Your task to perform on an android device: Search for "asus zenbook" on target.com, select the first entry, add it to the cart, then select checkout. Image 0: 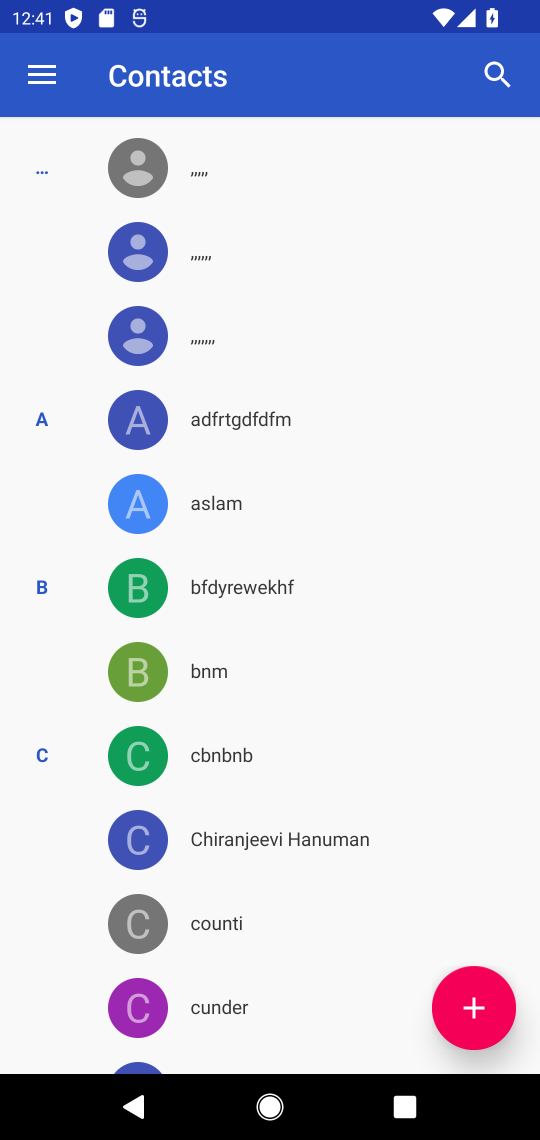
Step 0: press home button
Your task to perform on an android device: Search for "asus zenbook" on target.com, select the first entry, add it to the cart, then select checkout. Image 1: 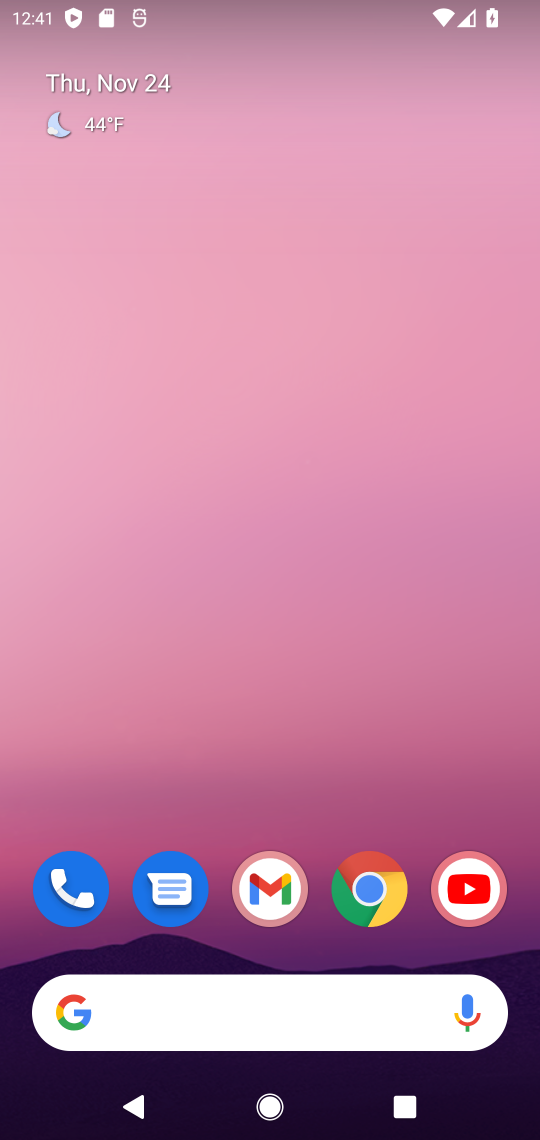
Step 1: click (375, 885)
Your task to perform on an android device: Search for "asus zenbook" on target.com, select the first entry, add it to the cart, then select checkout. Image 2: 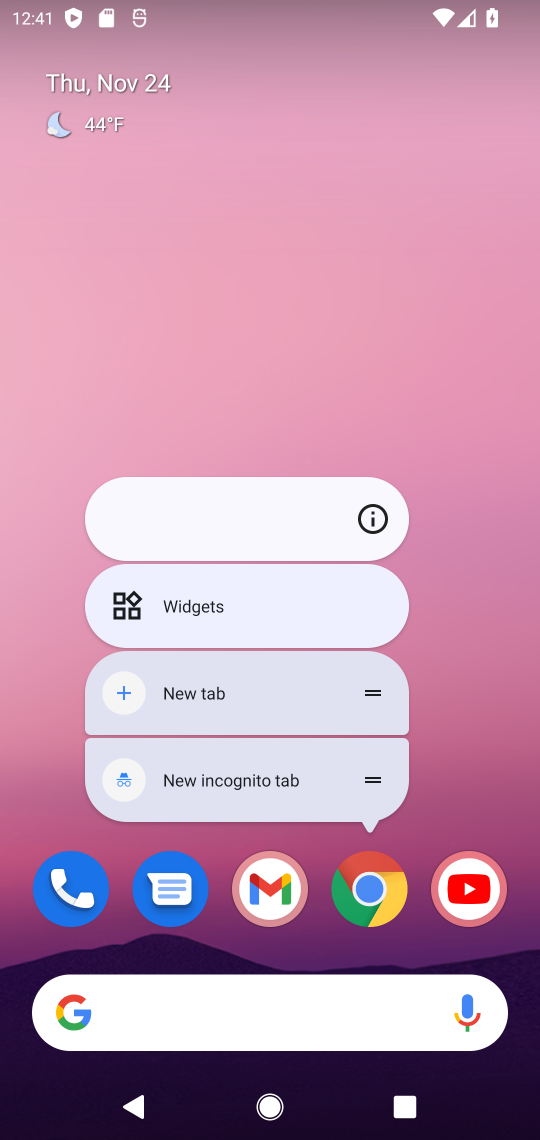
Step 2: click (373, 890)
Your task to perform on an android device: Search for "asus zenbook" on target.com, select the first entry, add it to the cart, then select checkout. Image 3: 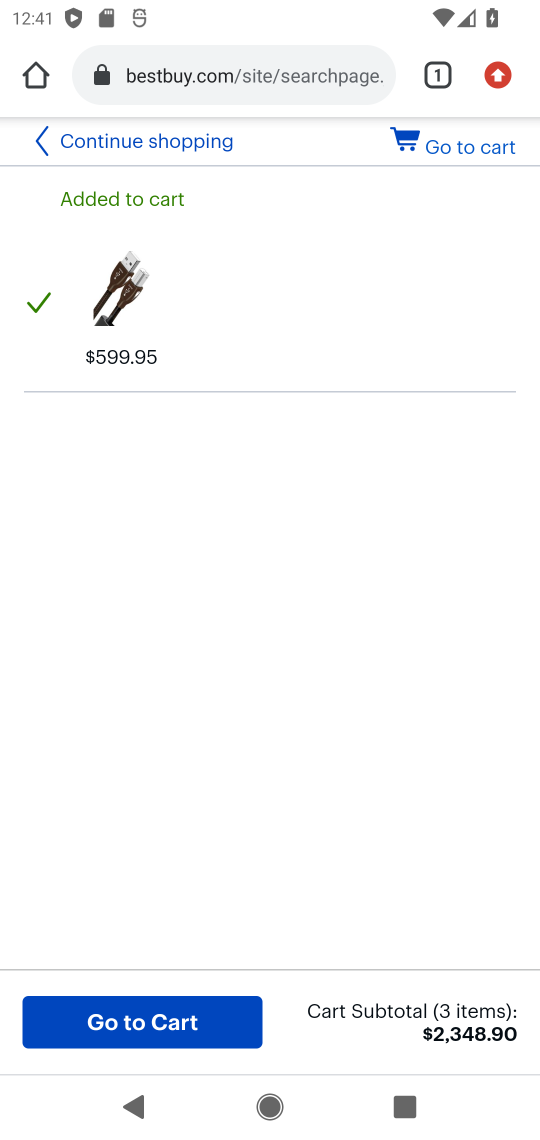
Step 3: click (212, 70)
Your task to perform on an android device: Search for "asus zenbook" on target.com, select the first entry, add it to the cart, then select checkout. Image 4: 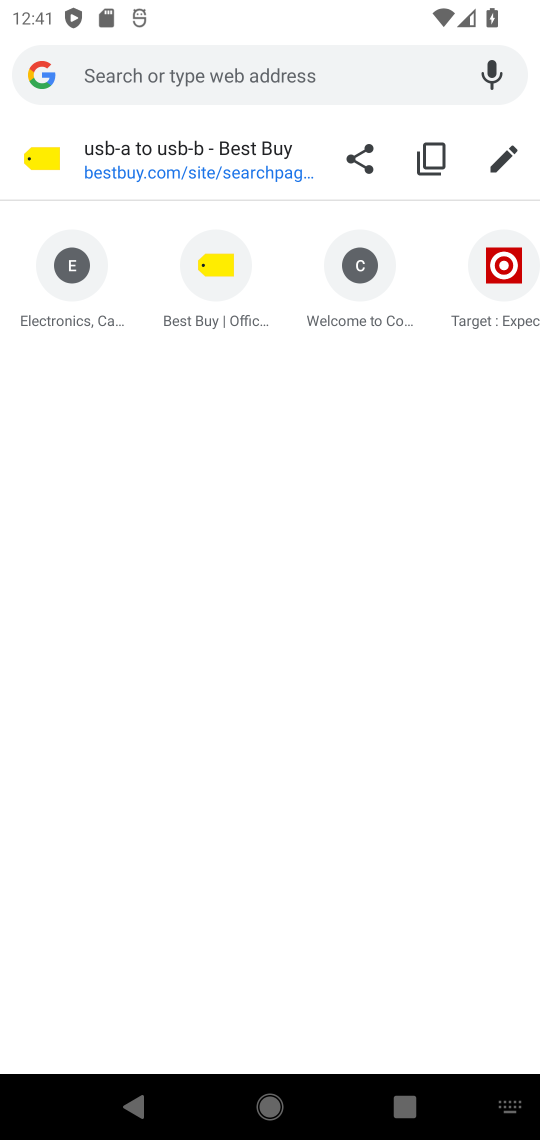
Step 4: click (493, 297)
Your task to perform on an android device: Search for "asus zenbook" on target.com, select the first entry, add it to the cart, then select checkout. Image 5: 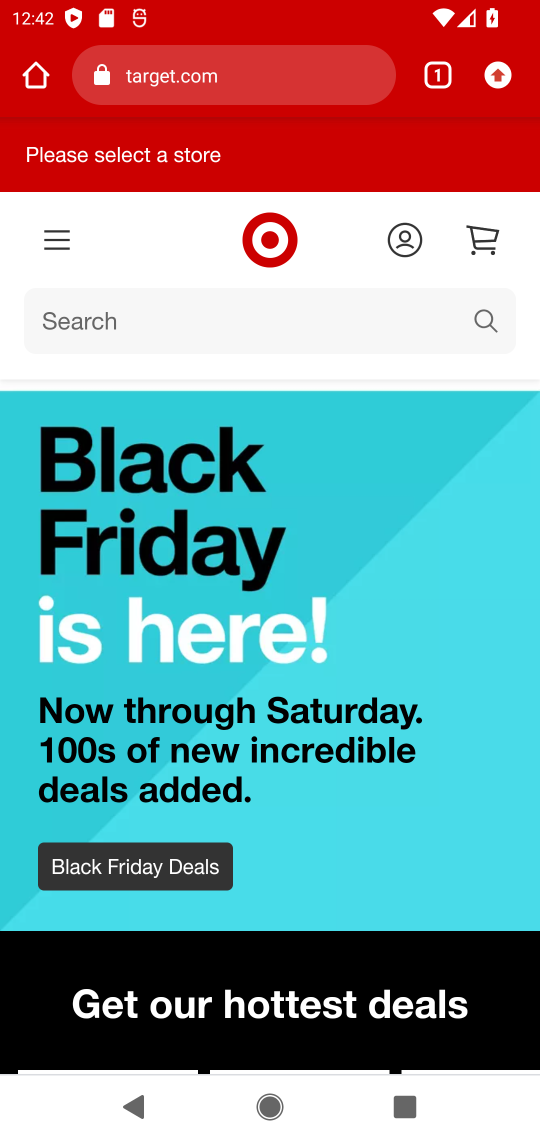
Step 5: click (491, 313)
Your task to perform on an android device: Search for "asus zenbook" on target.com, select the first entry, add it to the cart, then select checkout. Image 6: 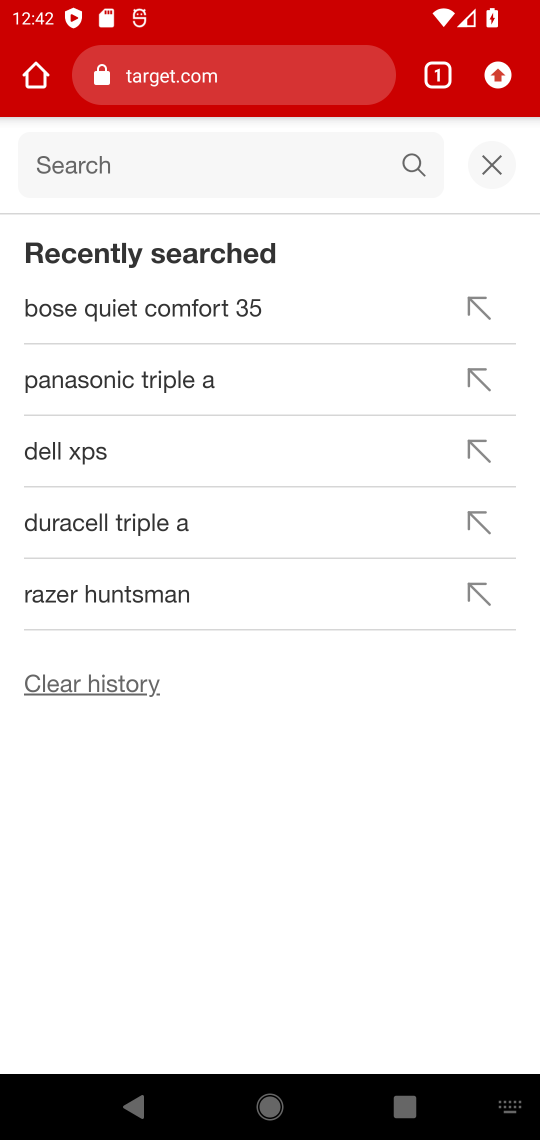
Step 6: type "asus zenbook"
Your task to perform on an android device: Search for "asus zenbook" on target.com, select the first entry, add it to the cart, then select checkout. Image 7: 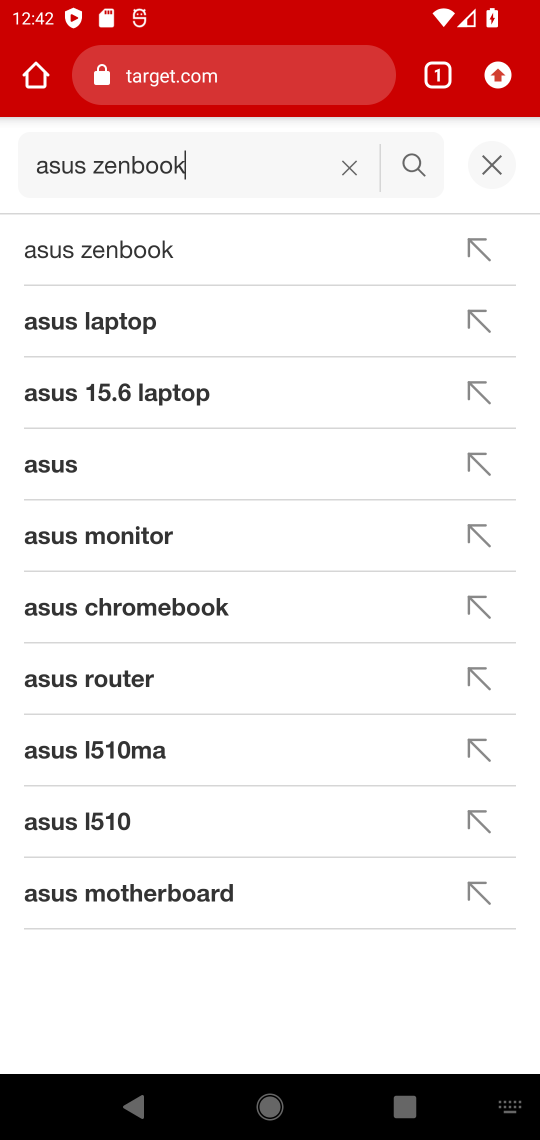
Step 7: click (110, 248)
Your task to perform on an android device: Search for "asus zenbook" on target.com, select the first entry, add it to the cart, then select checkout. Image 8: 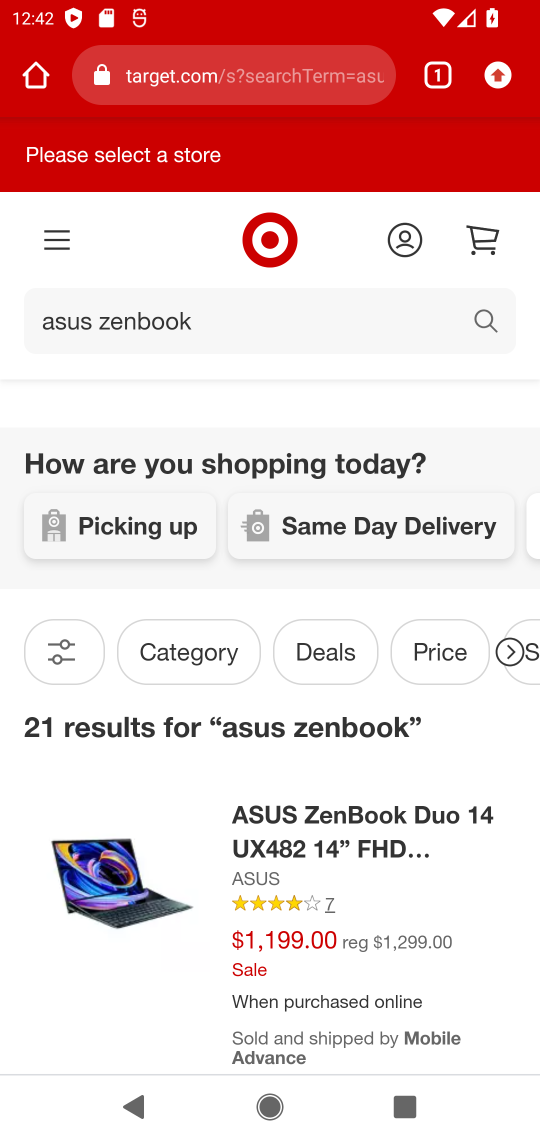
Step 8: drag from (190, 793) to (185, 521)
Your task to perform on an android device: Search for "asus zenbook" on target.com, select the first entry, add it to the cart, then select checkout. Image 9: 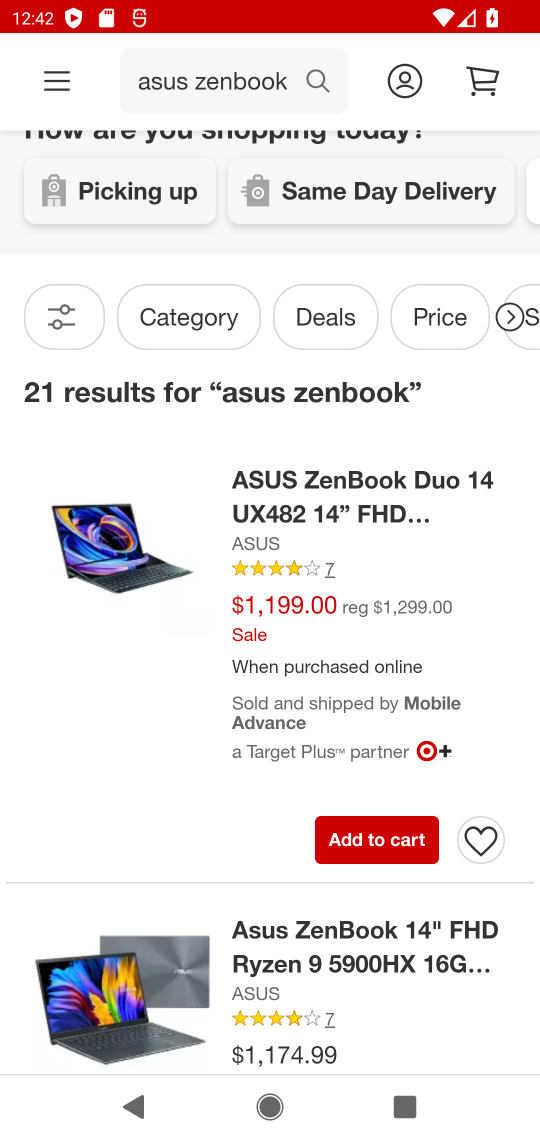
Step 9: click (367, 849)
Your task to perform on an android device: Search for "asus zenbook" on target.com, select the first entry, add it to the cart, then select checkout. Image 10: 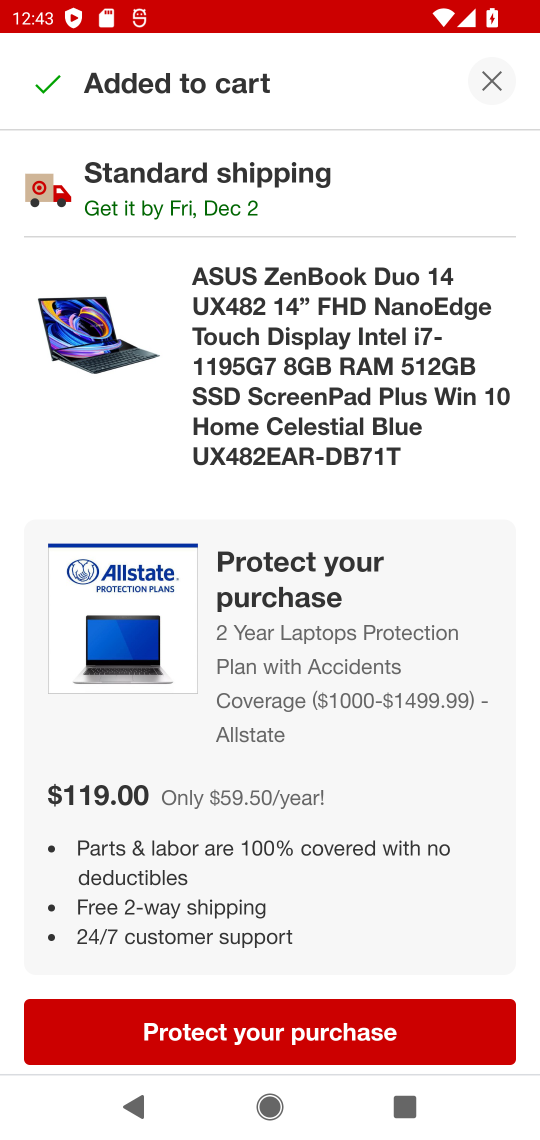
Step 10: click (495, 81)
Your task to perform on an android device: Search for "asus zenbook" on target.com, select the first entry, add it to the cart, then select checkout. Image 11: 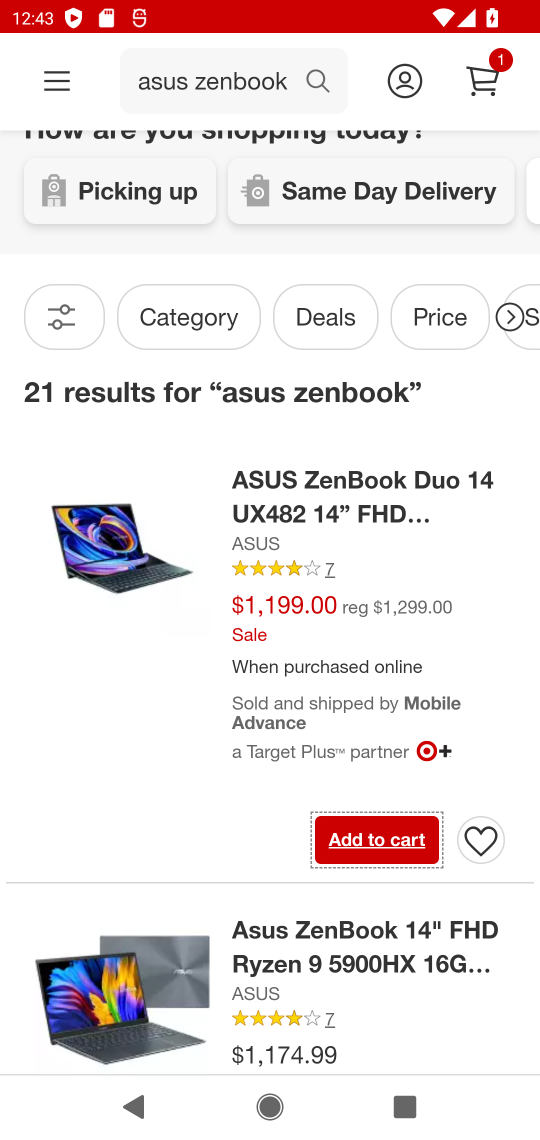
Step 11: click (494, 69)
Your task to perform on an android device: Search for "asus zenbook" on target.com, select the first entry, add it to the cart, then select checkout. Image 12: 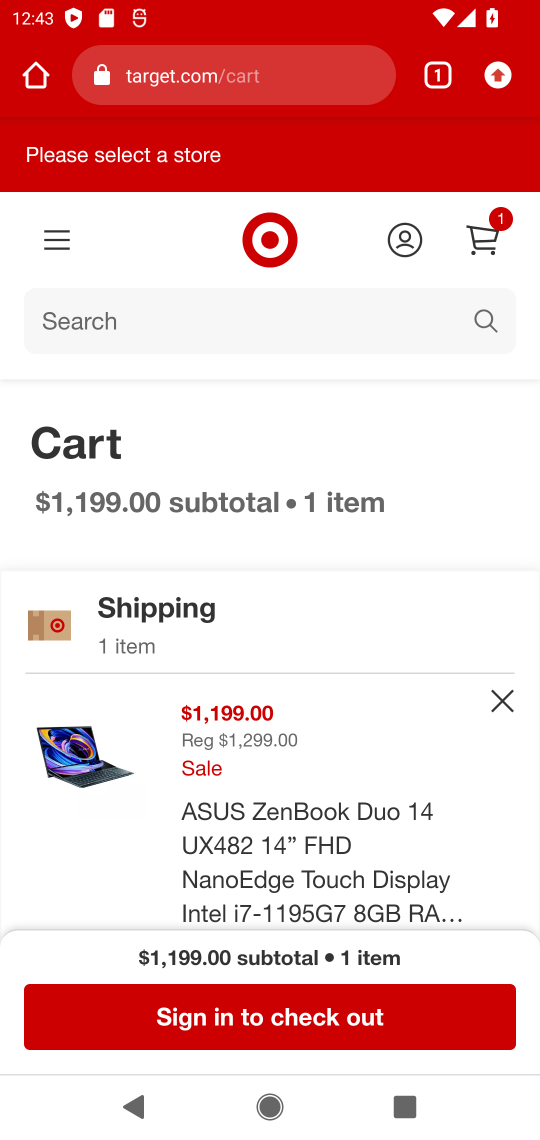
Step 12: click (259, 1026)
Your task to perform on an android device: Search for "asus zenbook" on target.com, select the first entry, add it to the cart, then select checkout. Image 13: 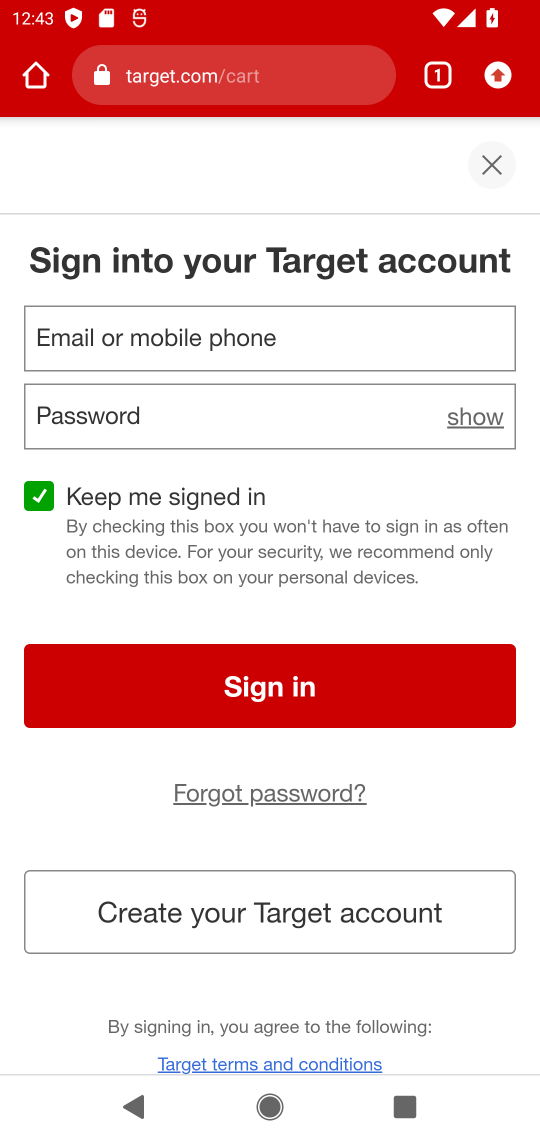
Step 13: task complete